Your task to perform on an android device: Open notification settings Image 0: 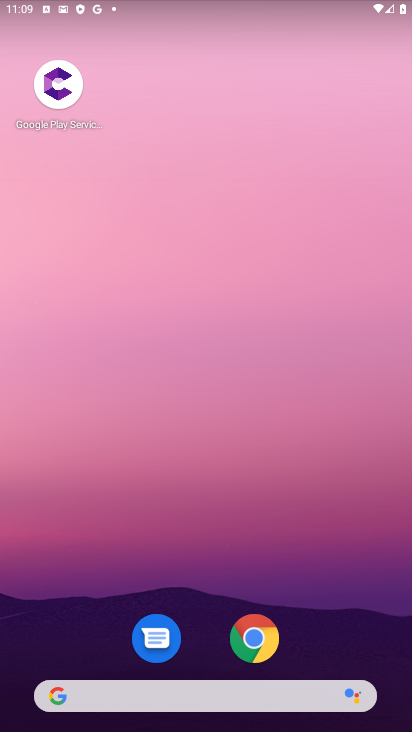
Step 0: drag from (322, 656) to (287, 163)
Your task to perform on an android device: Open notification settings Image 1: 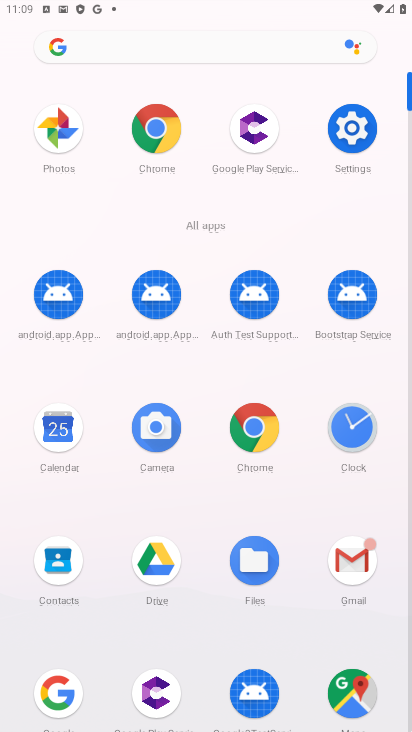
Step 1: click (335, 125)
Your task to perform on an android device: Open notification settings Image 2: 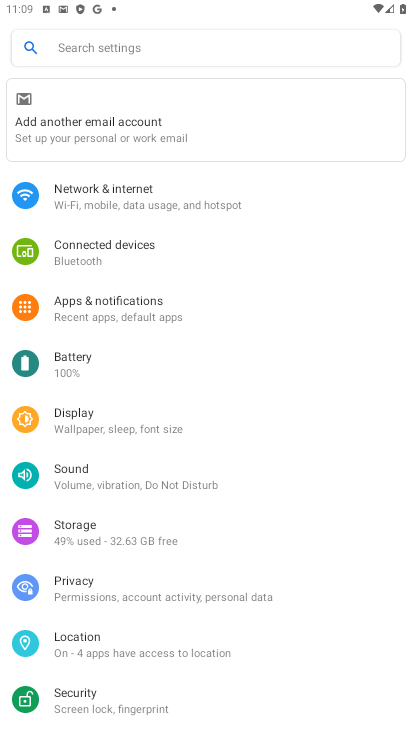
Step 2: click (140, 320)
Your task to perform on an android device: Open notification settings Image 3: 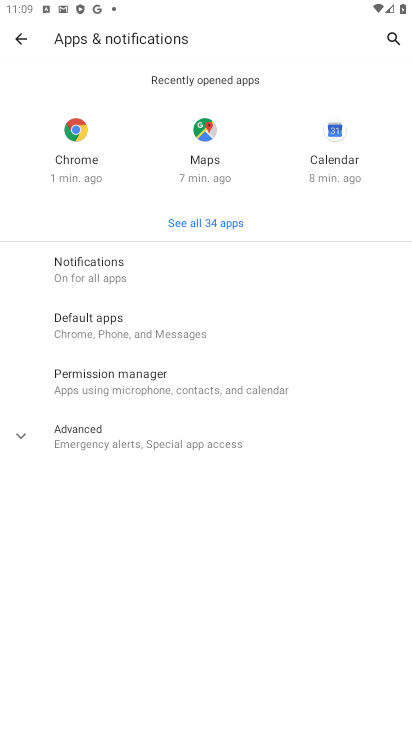
Step 3: task complete